Your task to perform on an android device: Is it going to rain this weekend? Image 0: 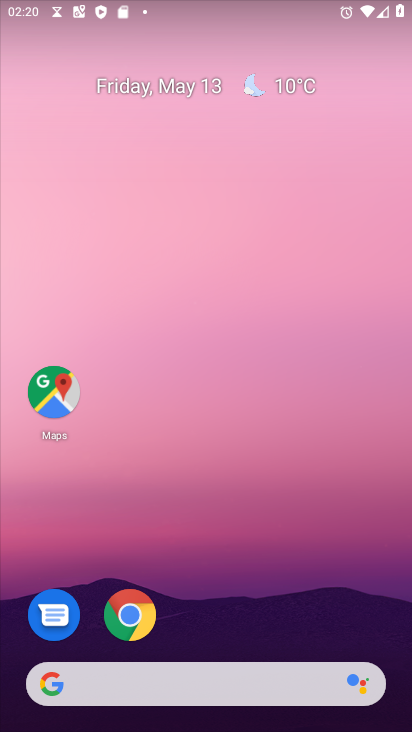
Step 0: click (142, 618)
Your task to perform on an android device: Is it going to rain this weekend? Image 1: 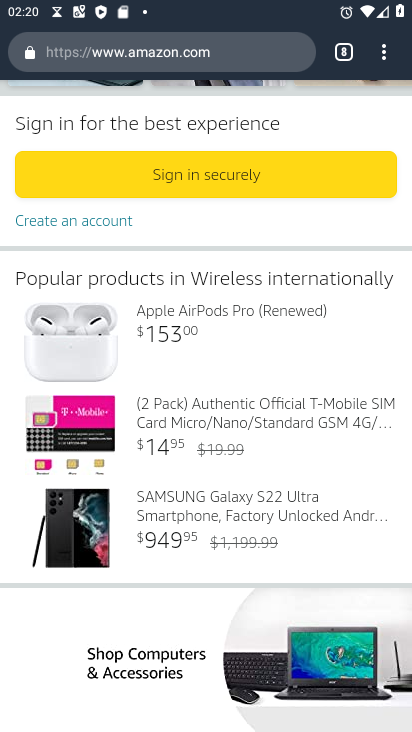
Step 1: click (340, 43)
Your task to perform on an android device: Is it going to rain this weekend? Image 2: 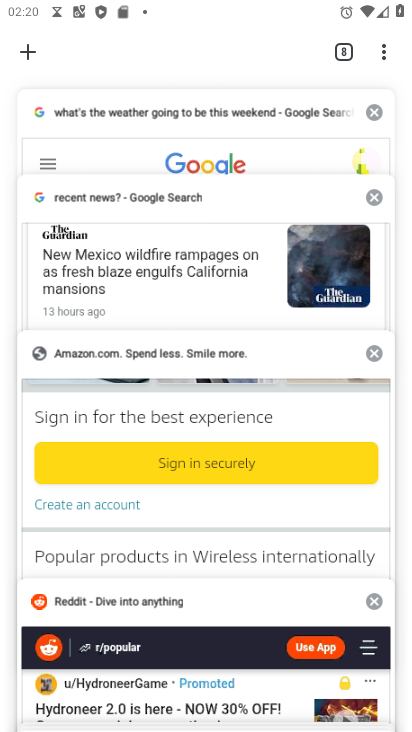
Step 2: drag from (146, 179) to (118, 534)
Your task to perform on an android device: Is it going to rain this weekend? Image 3: 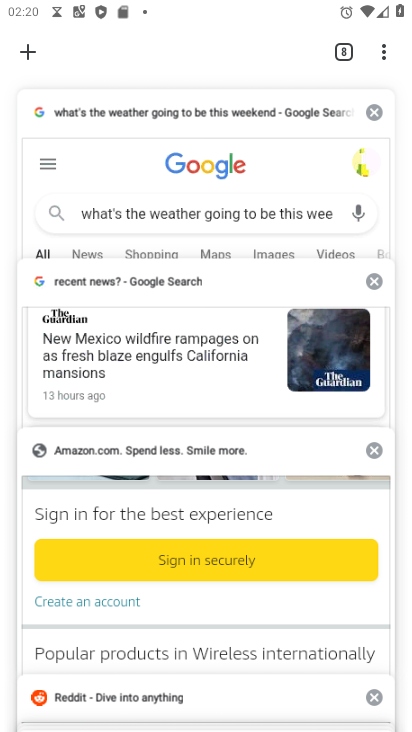
Step 3: drag from (173, 491) to (162, 102)
Your task to perform on an android device: Is it going to rain this weekend? Image 4: 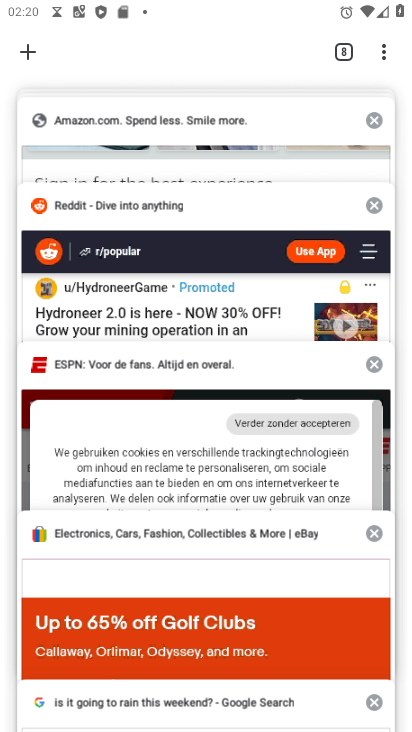
Step 4: drag from (169, 625) to (144, 284)
Your task to perform on an android device: Is it going to rain this weekend? Image 5: 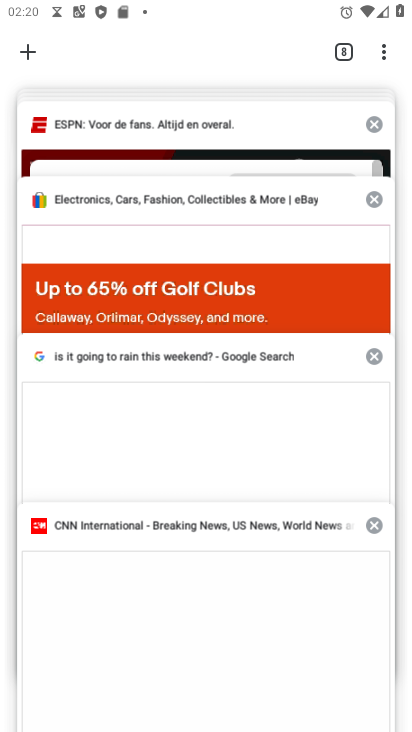
Step 5: click (125, 386)
Your task to perform on an android device: Is it going to rain this weekend? Image 6: 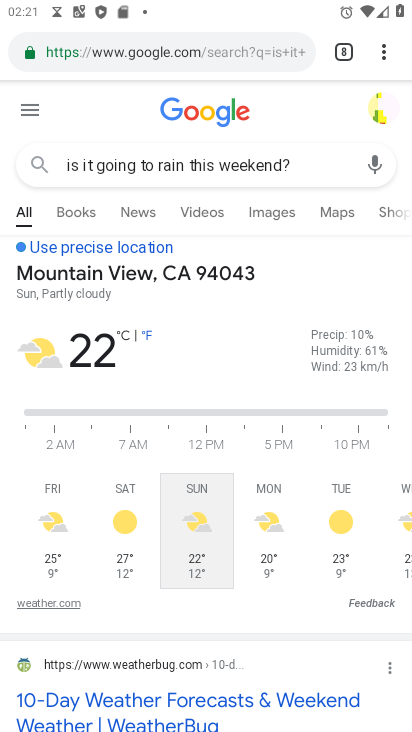
Step 6: click (124, 540)
Your task to perform on an android device: Is it going to rain this weekend? Image 7: 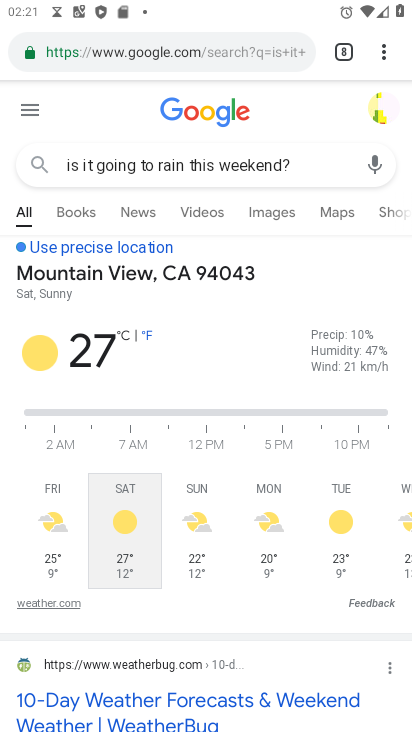
Step 7: click (194, 522)
Your task to perform on an android device: Is it going to rain this weekend? Image 8: 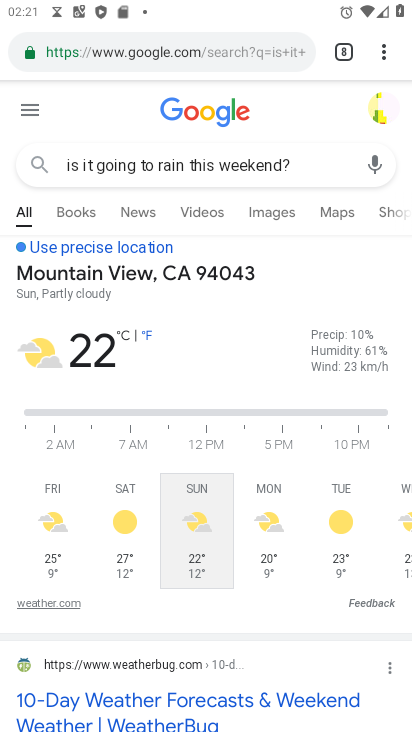
Step 8: task complete